Your task to perform on an android device: empty trash in google photos Image 0: 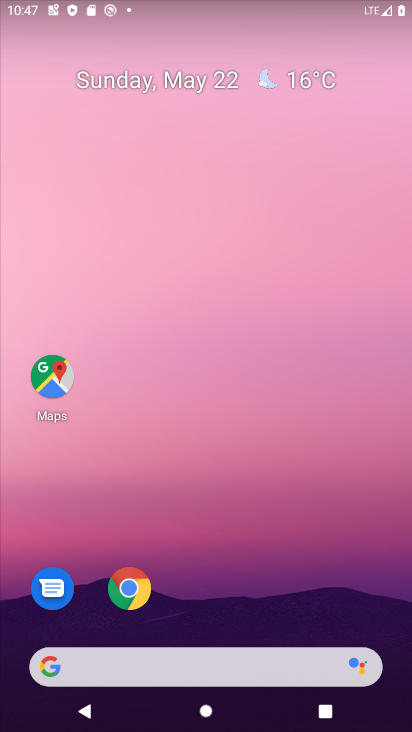
Step 0: drag from (189, 611) to (219, 255)
Your task to perform on an android device: empty trash in google photos Image 1: 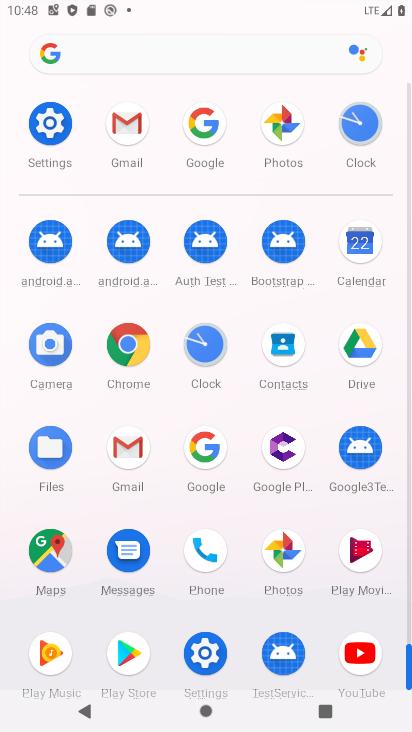
Step 1: click (278, 123)
Your task to perform on an android device: empty trash in google photos Image 2: 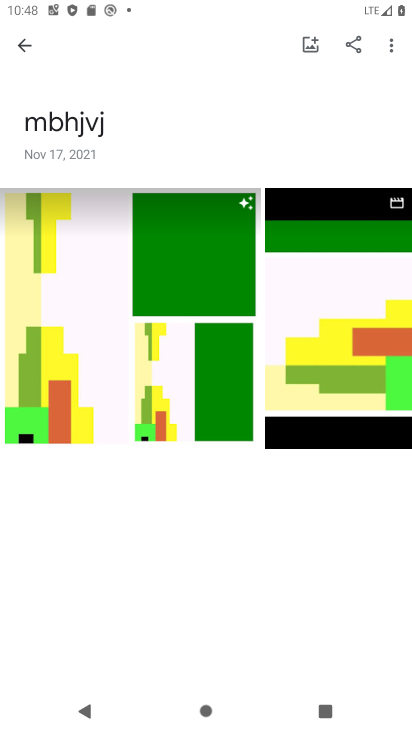
Step 2: click (28, 39)
Your task to perform on an android device: empty trash in google photos Image 3: 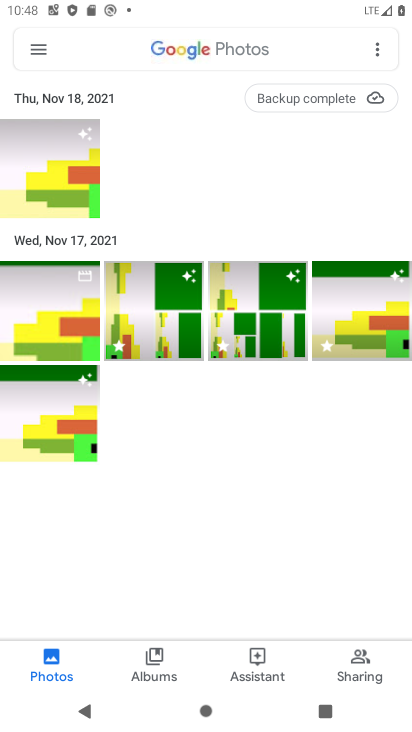
Step 3: click (28, 39)
Your task to perform on an android device: empty trash in google photos Image 4: 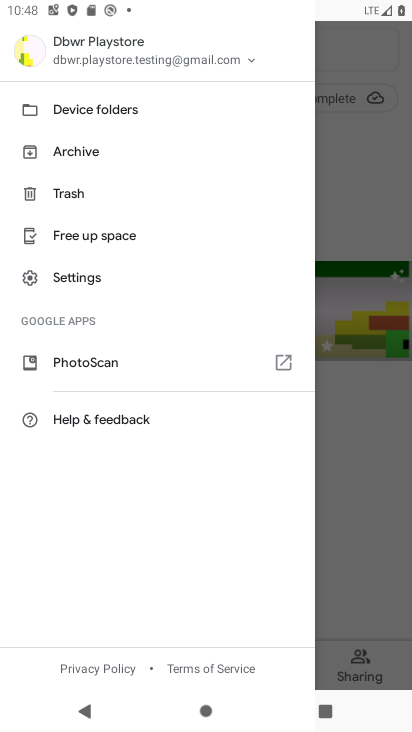
Step 4: click (91, 196)
Your task to perform on an android device: empty trash in google photos Image 5: 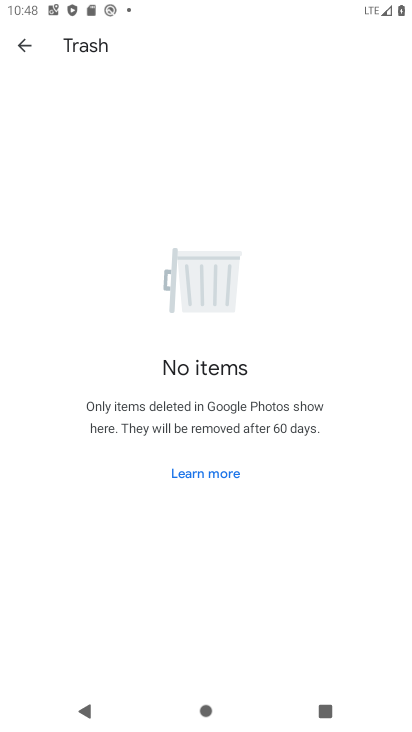
Step 5: task complete